Your task to perform on an android device: search for starred emails in the gmail app Image 0: 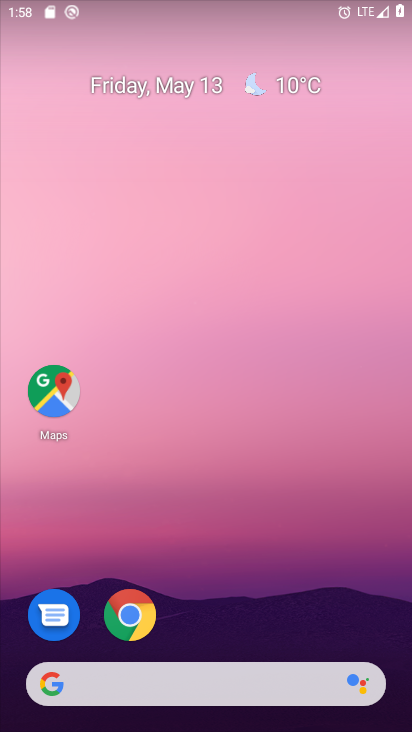
Step 0: drag from (259, 558) to (239, 54)
Your task to perform on an android device: search for starred emails in the gmail app Image 1: 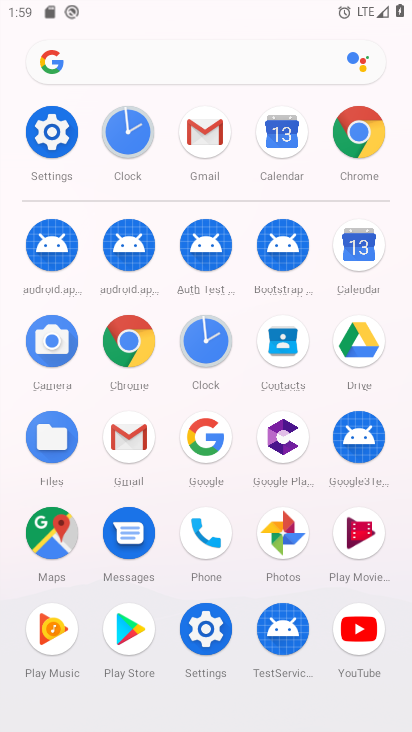
Step 1: click (215, 132)
Your task to perform on an android device: search for starred emails in the gmail app Image 2: 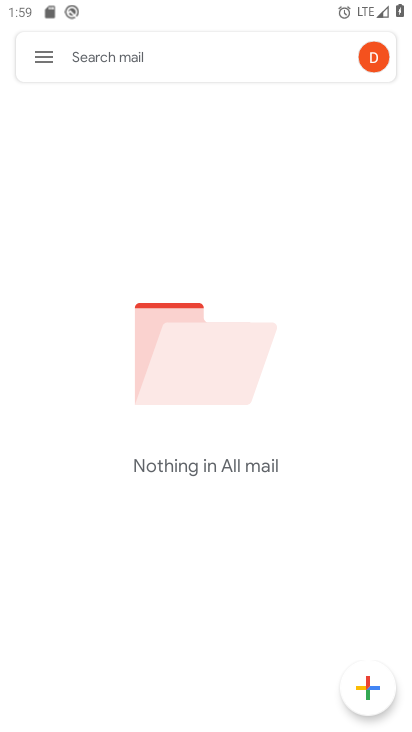
Step 2: click (42, 51)
Your task to perform on an android device: search for starred emails in the gmail app Image 3: 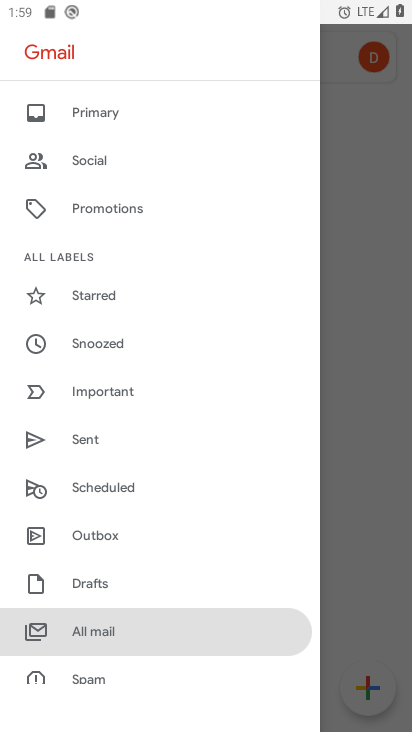
Step 3: click (118, 288)
Your task to perform on an android device: search for starred emails in the gmail app Image 4: 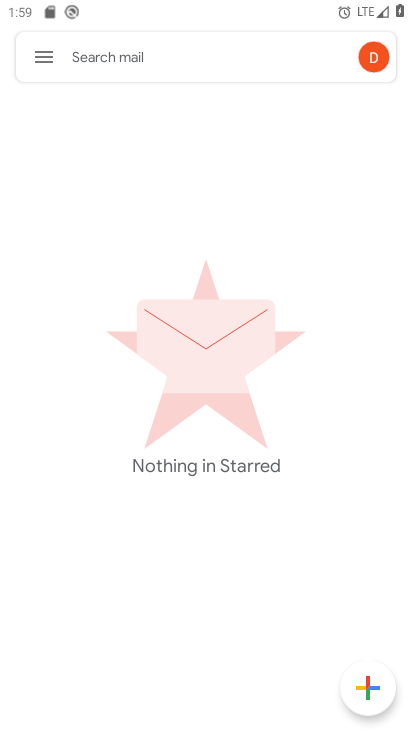
Step 4: task complete